Your task to perform on an android device: Do I have any events this weekend? Image 0: 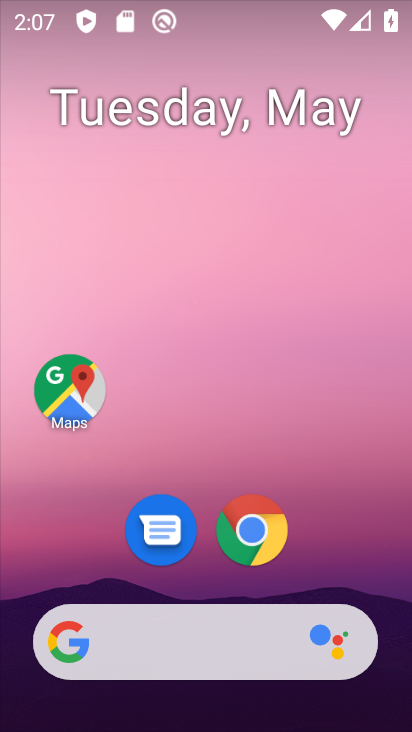
Step 0: drag from (184, 574) to (194, 162)
Your task to perform on an android device: Do I have any events this weekend? Image 1: 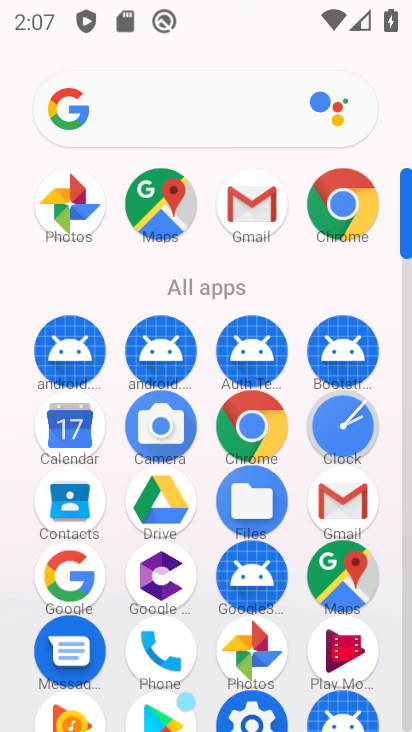
Step 1: drag from (220, 483) to (263, 283)
Your task to perform on an android device: Do I have any events this weekend? Image 2: 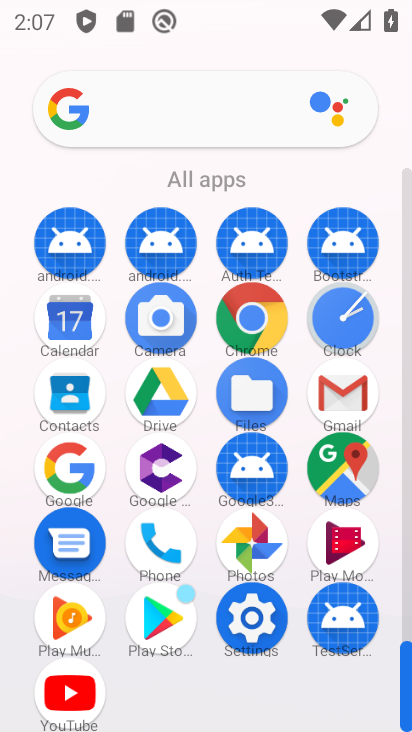
Step 2: drag from (225, 269) to (232, 553)
Your task to perform on an android device: Do I have any events this weekend? Image 3: 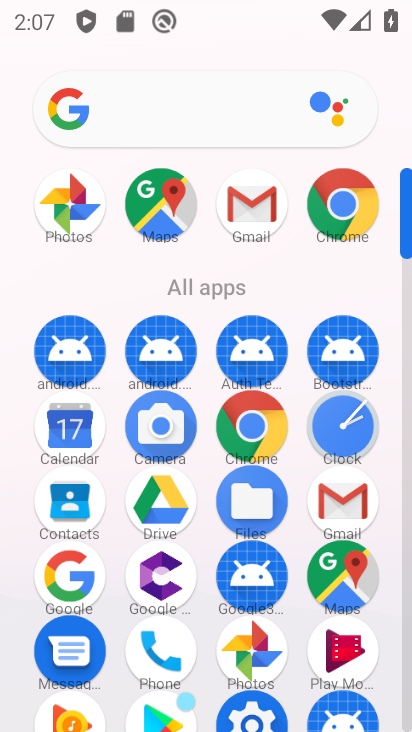
Step 3: click (82, 433)
Your task to perform on an android device: Do I have any events this weekend? Image 4: 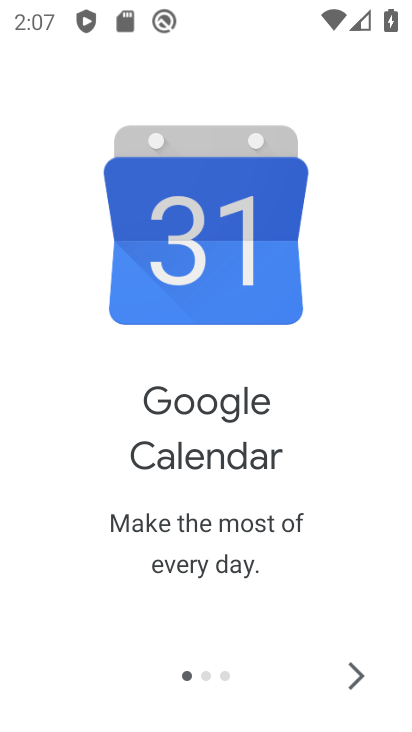
Step 4: click (341, 657)
Your task to perform on an android device: Do I have any events this weekend? Image 5: 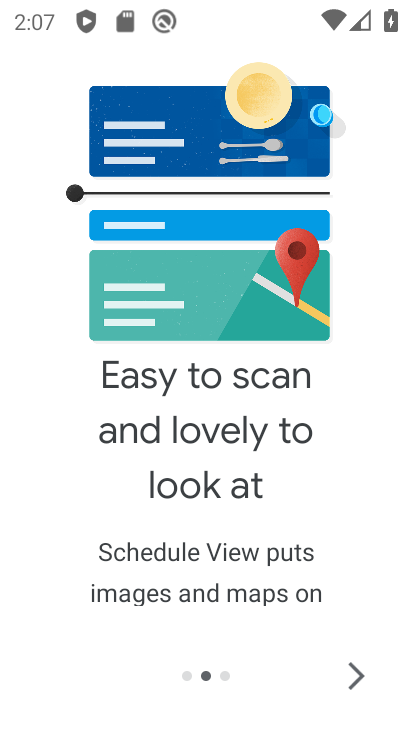
Step 5: click (342, 657)
Your task to perform on an android device: Do I have any events this weekend? Image 6: 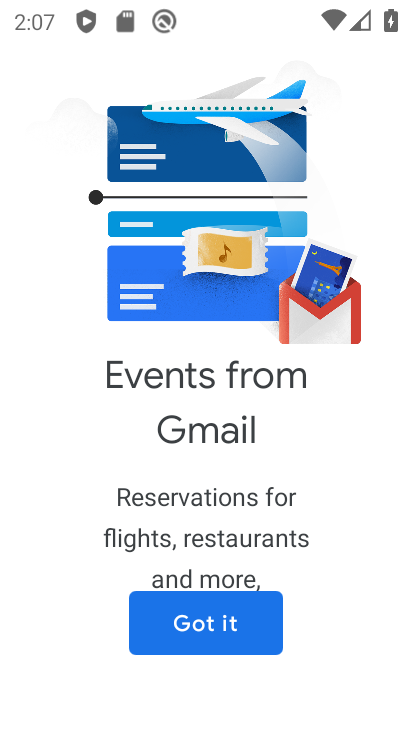
Step 6: click (219, 641)
Your task to perform on an android device: Do I have any events this weekend? Image 7: 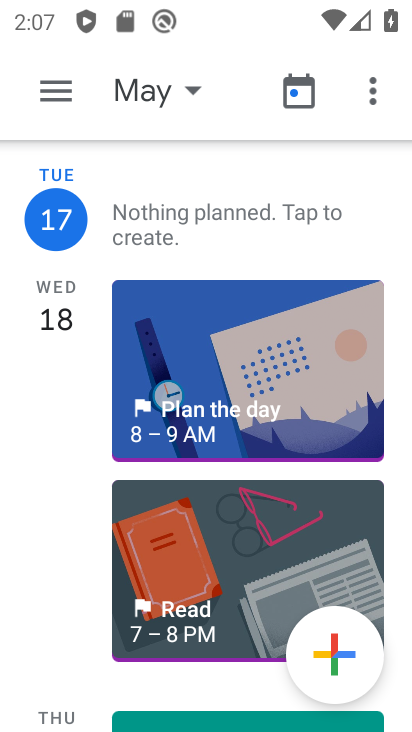
Step 7: click (174, 83)
Your task to perform on an android device: Do I have any events this weekend? Image 8: 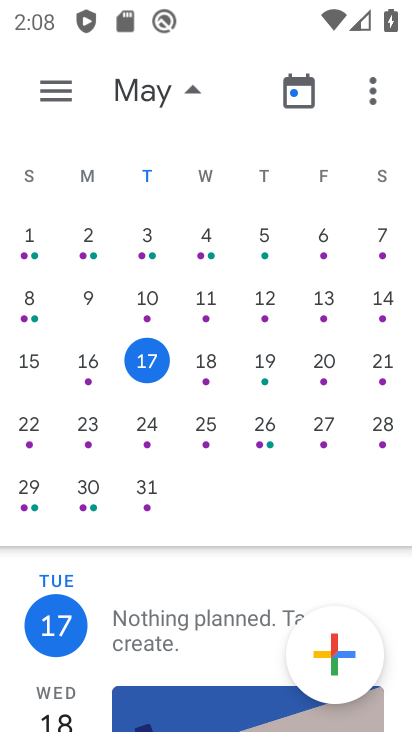
Step 8: click (376, 370)
Your task to perform on an android device: Do I have any events this weekend? Image 9: 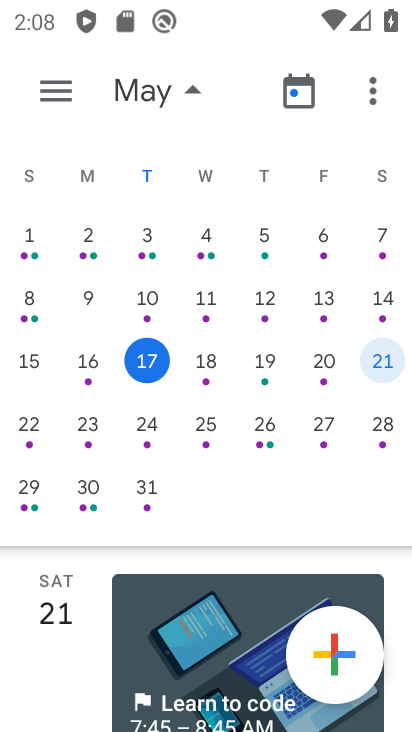
Step 9: click (375, 365)
Your task to perform on an android device: Do I have any events this weekend? Image 10: 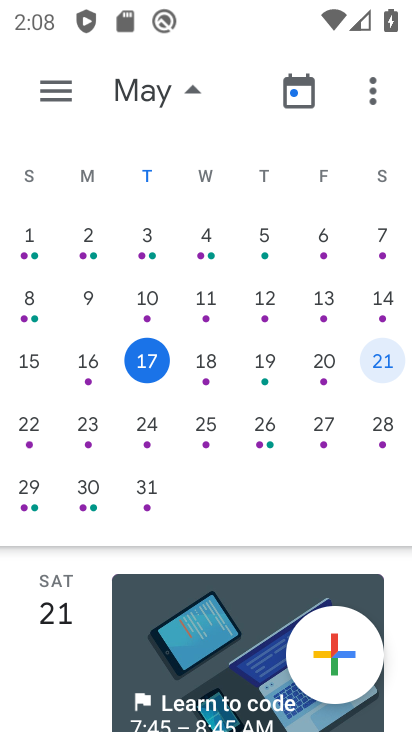
Step 10: task complete